Your task to perform on an android device: Check the news Image 0: 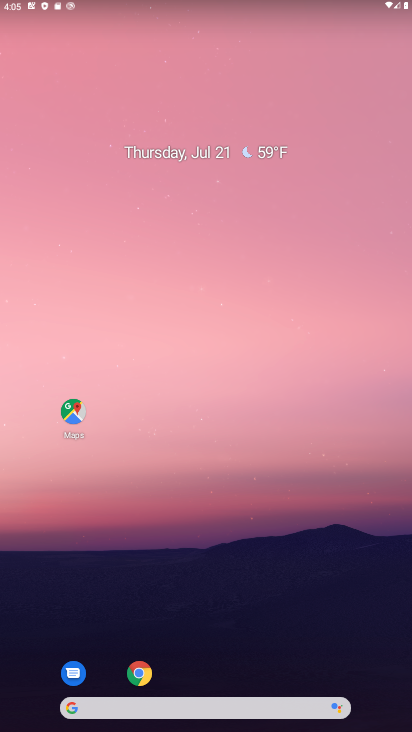
Step 0: drag from (6, 305) to (375, 345)
Your task to perform on an android device: Check the news Image 1: 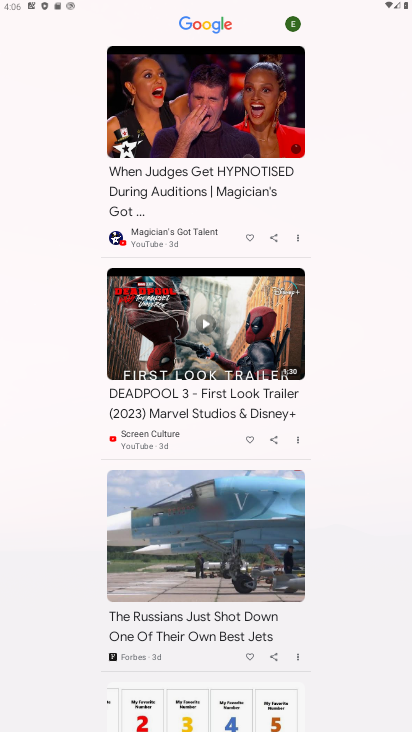
Step 1: task complete